Your task to perform on an android device: Go to privacy settings Image 0: 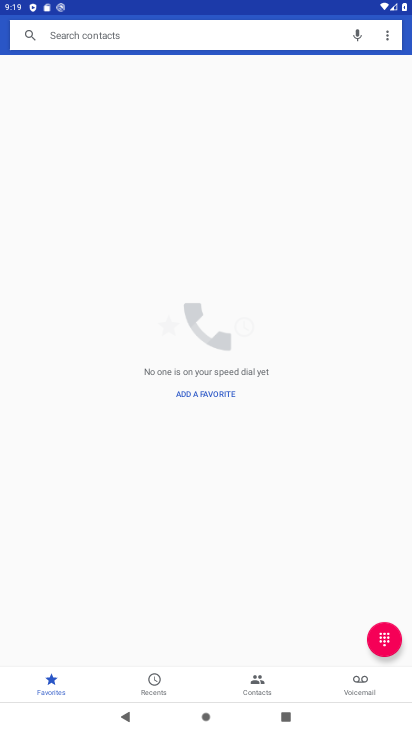
Step 0: press home button
Your task to perform on an android device: Go to privacy settings Image 1: 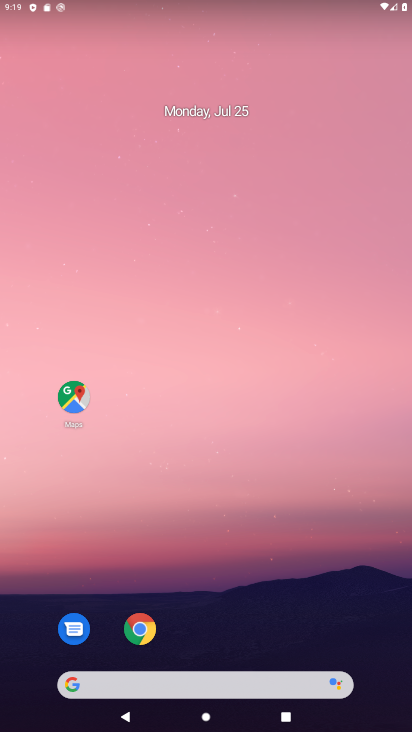
Step 1: drag from (262, 620) to (210, 94)
Your task to perform on an android device: Go to privacy settings Image 2: 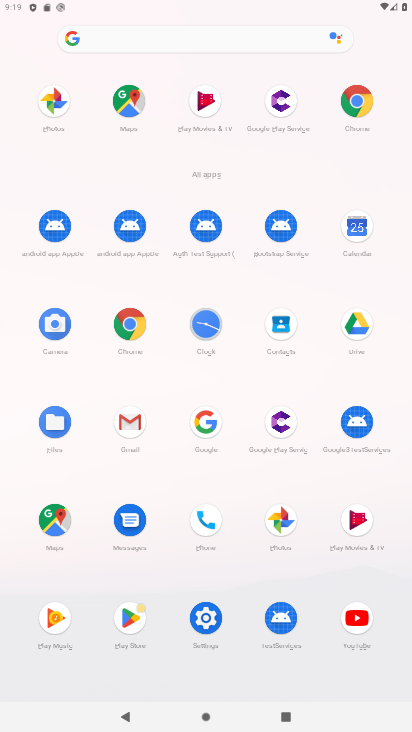
Step 2: click (198, 610)
Your task to perform on an android device: Go to privacy settings Image 3: 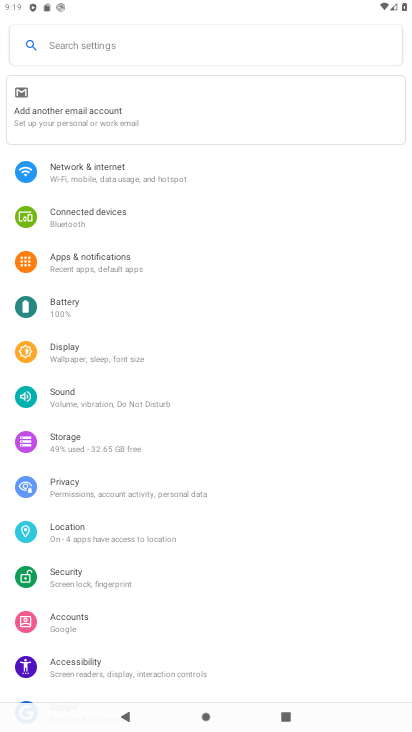
Step 3: click (78, 487)
Your task to perform on an android device: Go to privacy settings Image 4: 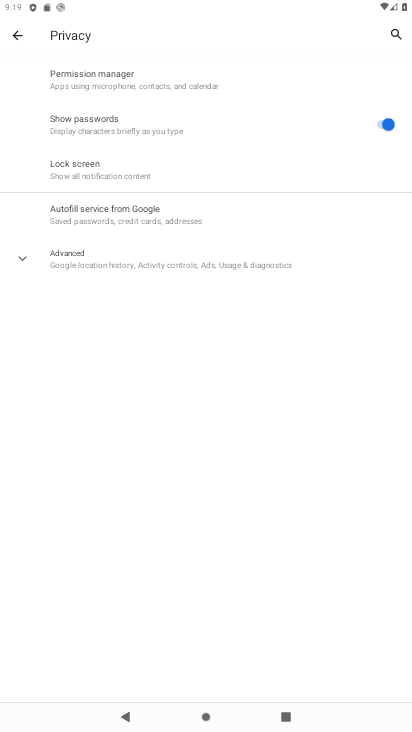
Step 4: task complete